Your task to perform on an android device: Turn on the flashlight Image 0: 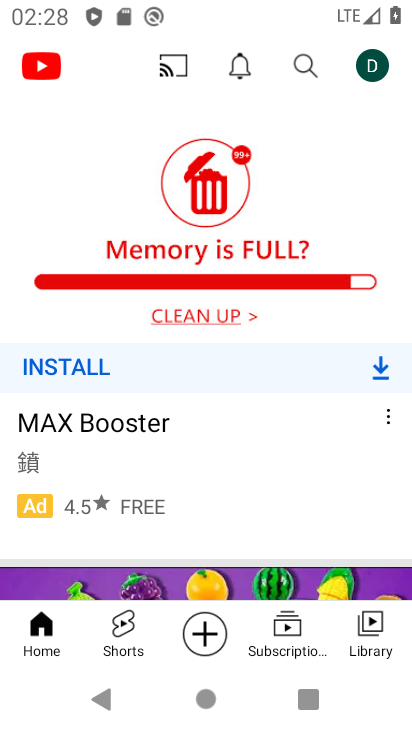
Step 0: drag from (263, 7) to (393, 626)
Your task to perform on an android device: Turn on the flashlight Image 1: 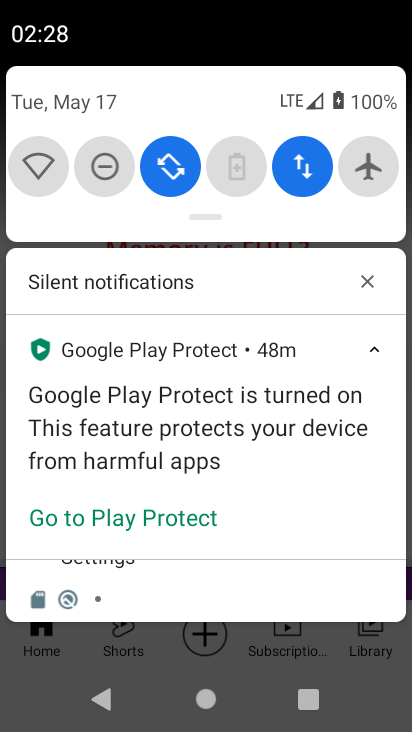
Step 1: drag from (233, 124) to (262, 725)
Your task to perform on an android device: Turn on the flashlight Image 2: 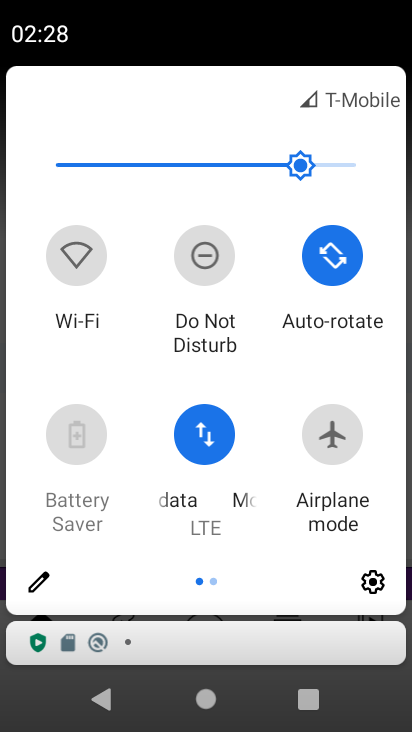
Step 2: click (361, 582)
Your task to perform on an android device: Turn on the flashlight Image 3: 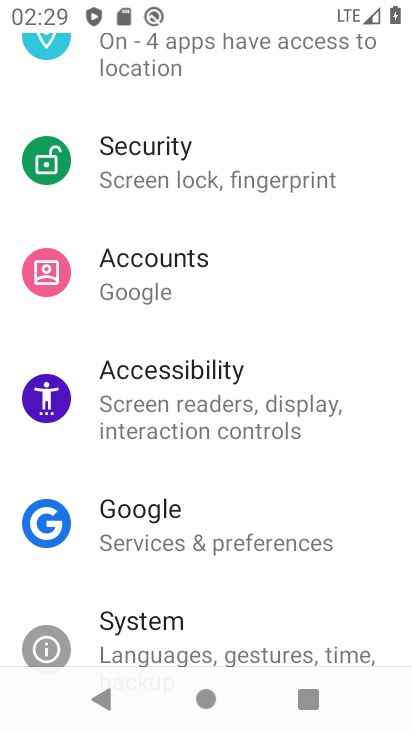
Step 3: task complete